Your task to perform on an android device: turn on airplane mode Image 0: 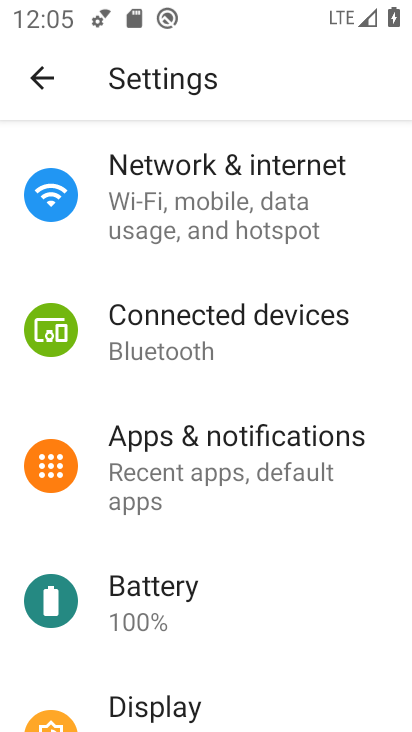
Step 0: click (139, 193)
Your task to perform on an android device: turn on airplane mode Image 1: 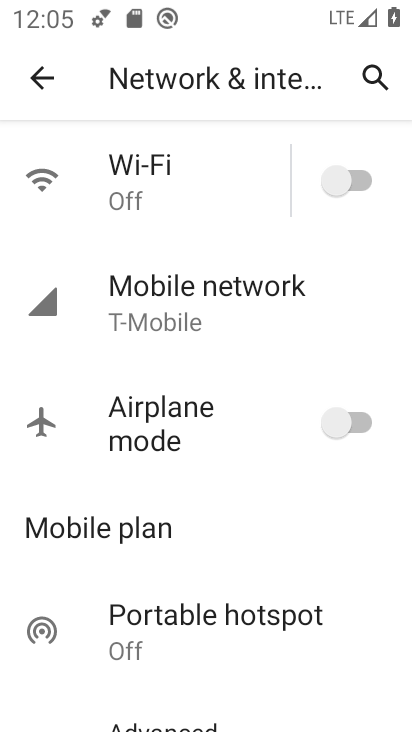
Step 1: click (366, 423)
Your task to perform on an android device: turn on airplane mode Image 2: 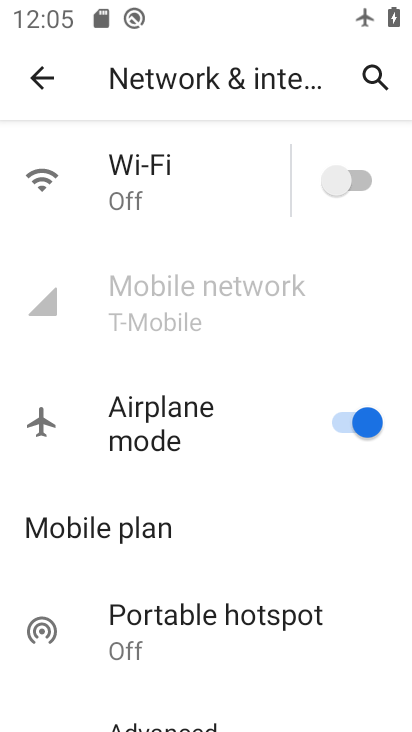
Step 2: task complete